Your task to perform on an android device: check out phone information Image 0: 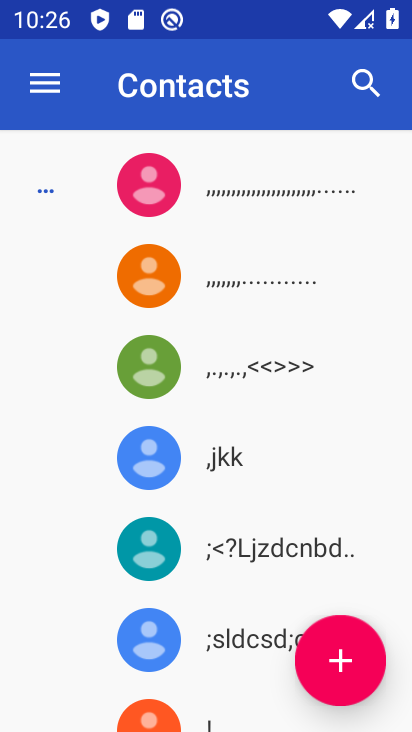
Step 0: press home button
Your task to perform on an android device: check out phone information Image 1: 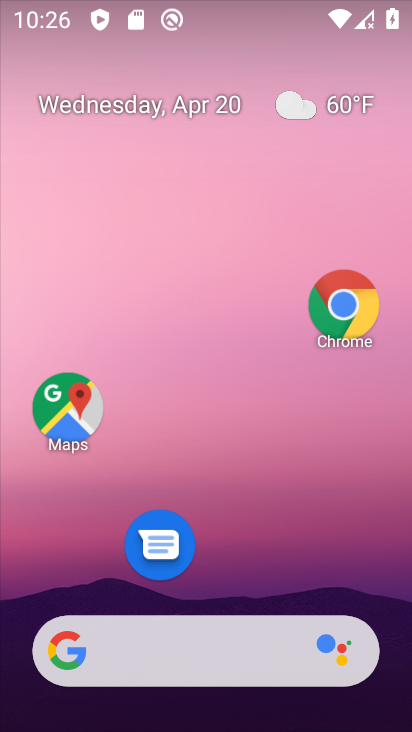
Step 1: drag from (282, 626) to (300, 167)
Your task to perform on an android device: check out phone information Image 2: 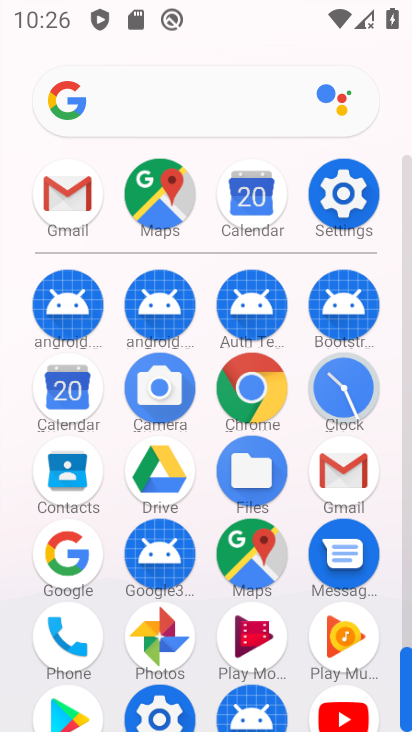
Step 2: click (364, 201)
Your task to perform on an android device: check out phone information Image 3: 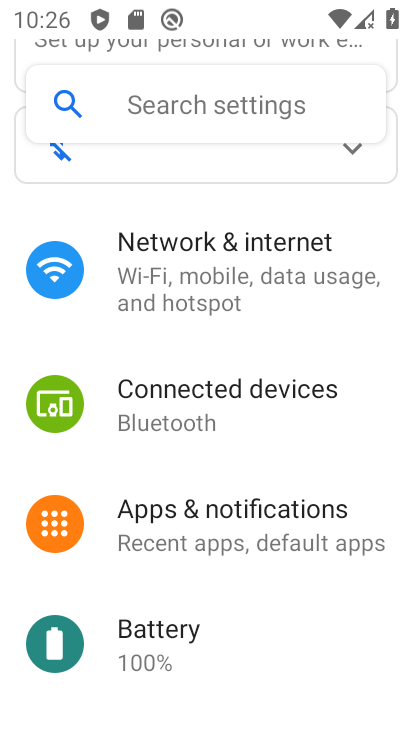
Step 3: drag from (250, 545) to (276, 154)
Your task to perform on an android device: check out phone information Image 4: 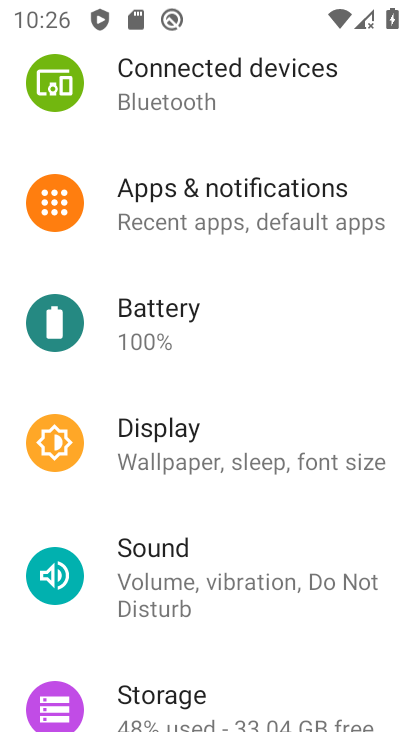
Step 4: drag from (258, 436) to (258, 363)
Your task to perform on an android device: check out phone information Image 5: 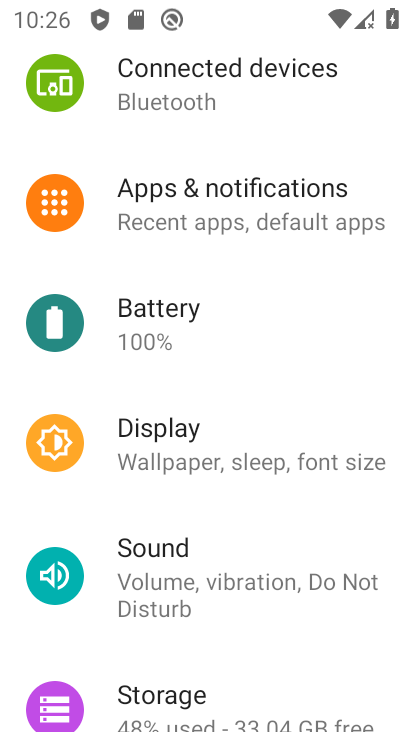
Step 5: drag from (247, 568) to (254, 226)
Your task to perform on an android device: check out phone information Image 6: 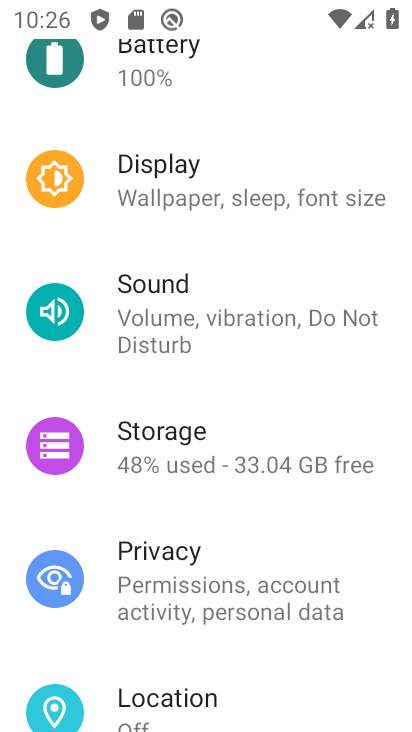
Step 6: drag from (201, 519) to (196, 190)
Your task to perform on an android device: check out phone information Image 7: 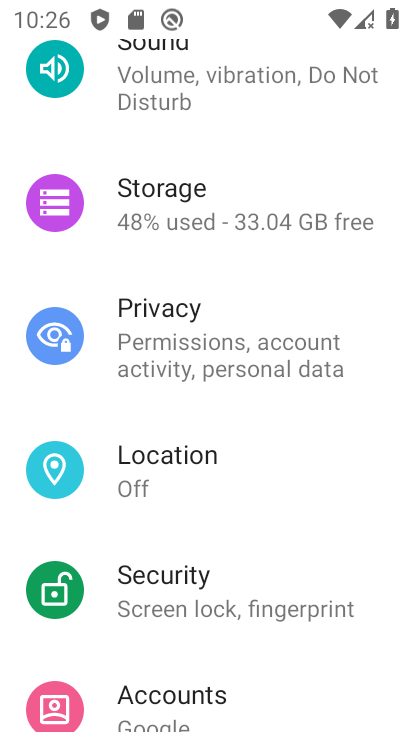
Step 7: drag from (200, 450) to (197, 155)
Your task to perform on an android device: check out phone information Image 8: 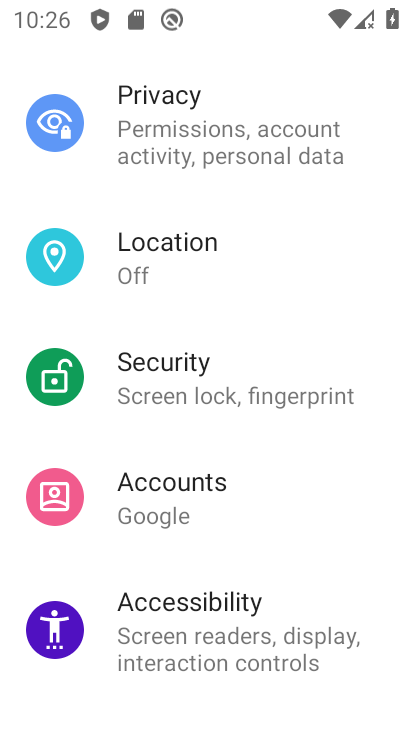
Step 8: drag from (206, 516) to (191, 197)
Your task to perform on an android device: check out phone information Image 9: 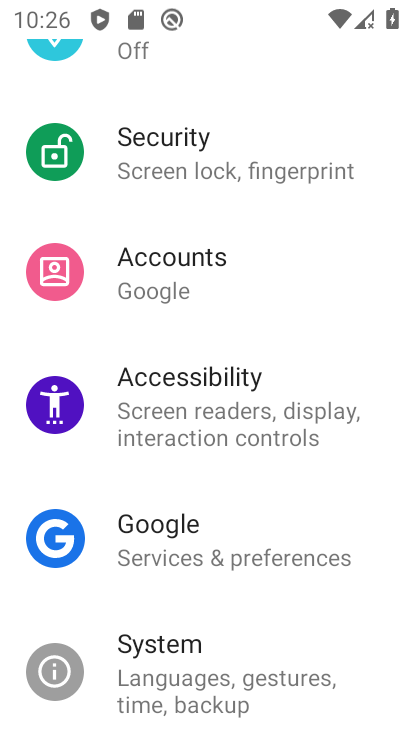
Step 9: drag from (226, 492) to (217, 230)
Your task to perform on an android device: check out phone information Image 10: 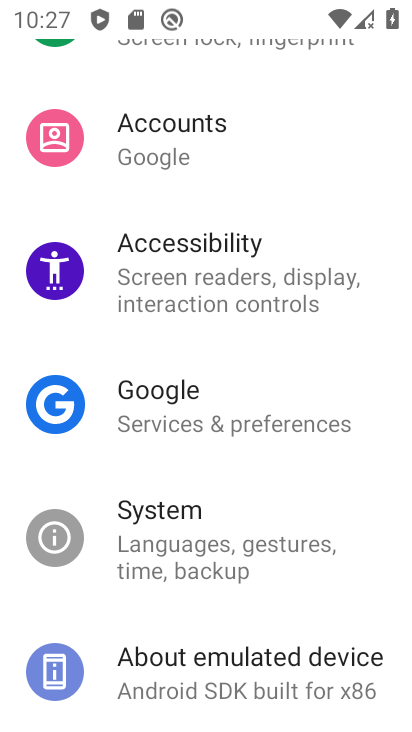
Step 10: drag from (209, 531) to (221, 327)
Your task to perform on an android device: check out phone information Image 11: 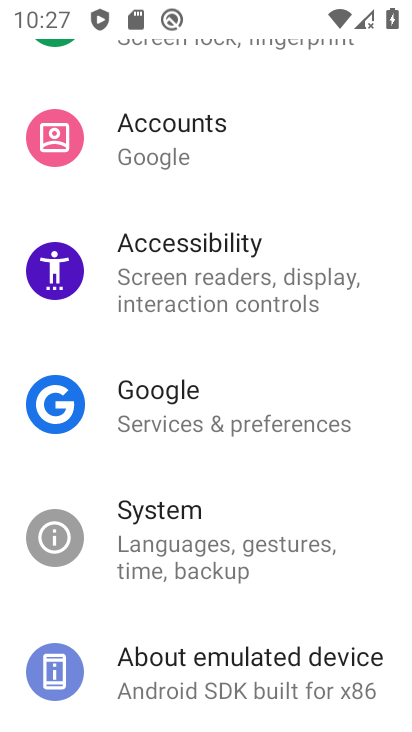
Step 11: click (233, 658)
Your task to perform on an android device: check out phone information Image 12: 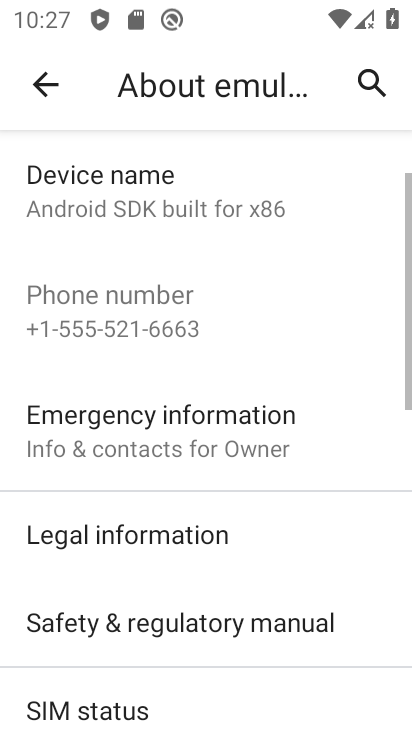
Step 12: task complete